Your task to perform on an android device: turn off notifications in google photos Image 0: 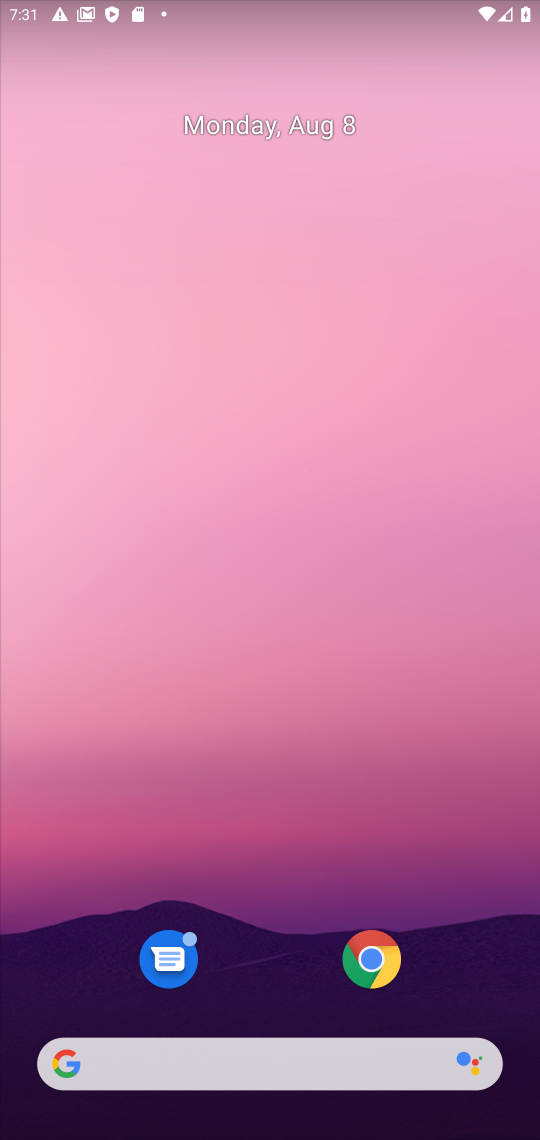
Step 0: drag from (476, 950) to (179, 54)
Your task to perform on an android device: turn off notifications in google photos Image 1: 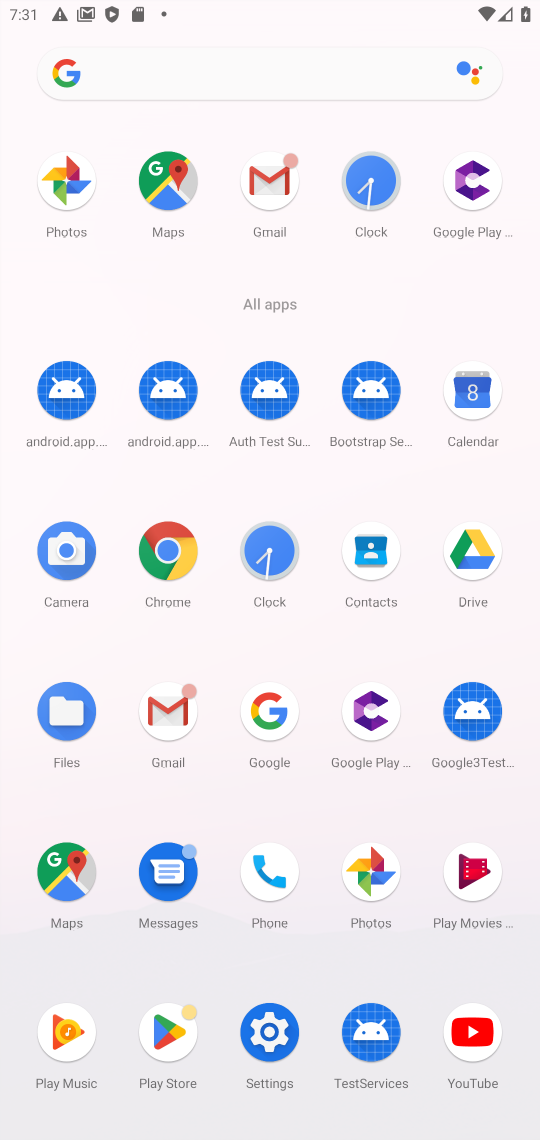
Step 1: click (358, 870)
Your task to perform on an android device: turn off notifications in google photos Image 2: 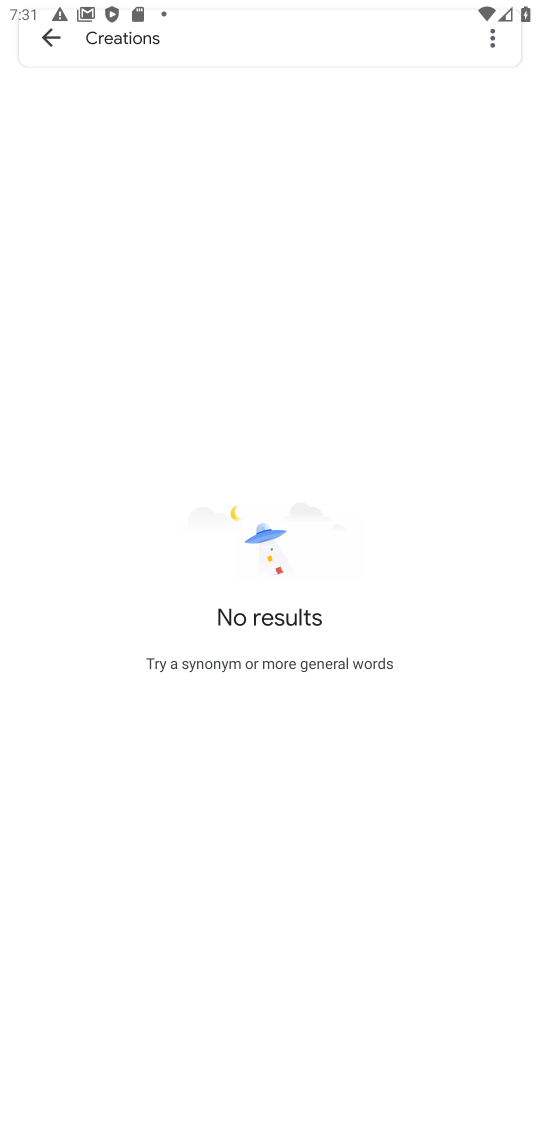
Step 2: click (65, 33)
Your task to perform on an android device: turn off notifications in google photos Image 3: 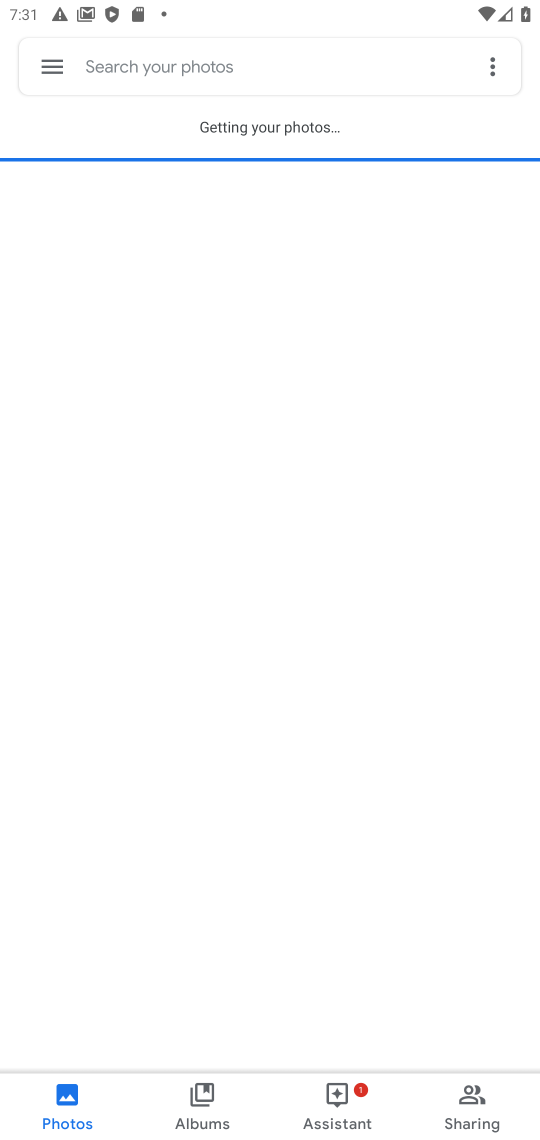
Step 3: click (62, 76)
Your task to perform on an android device: turn off notifications in google photos Image 4: 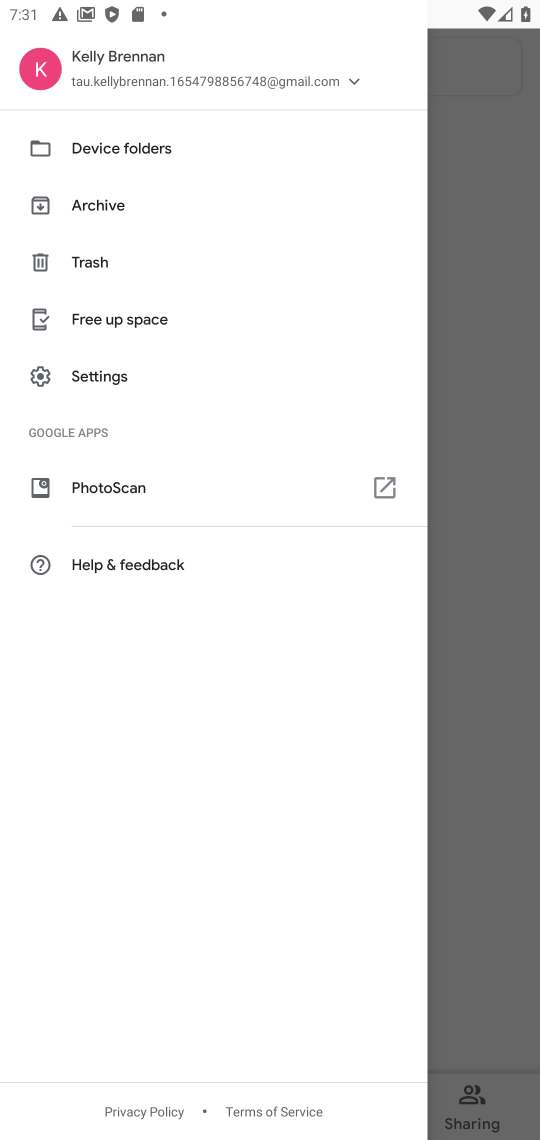
Step 4: click (136, 363)
Your task to perform on an android device: turn off notifications in google photos Image 5: 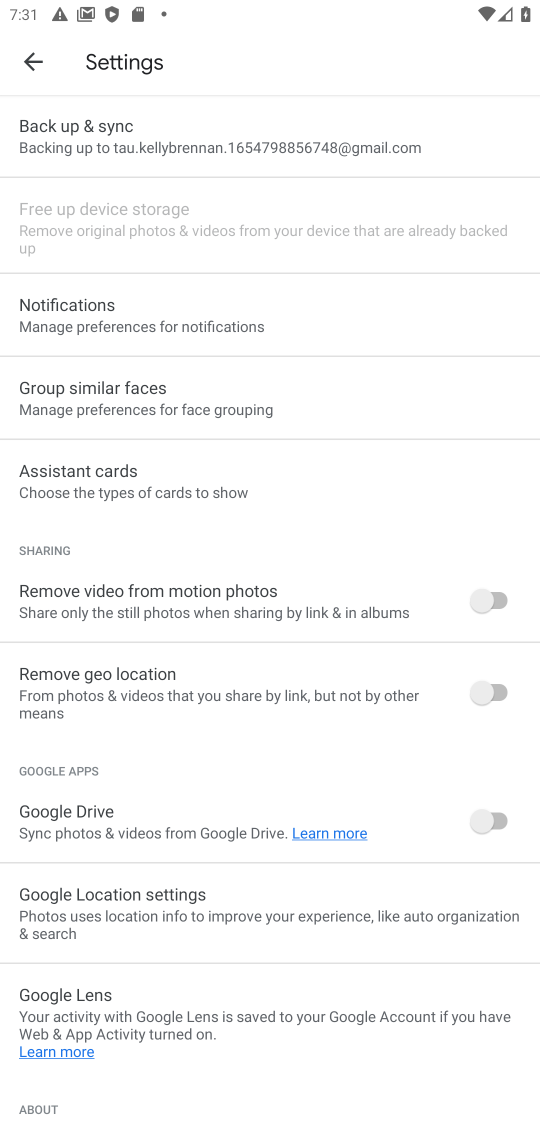
Step 5: click (104, 300)
Your task to perform on an android device: turn off notifications in google photos Image 6: 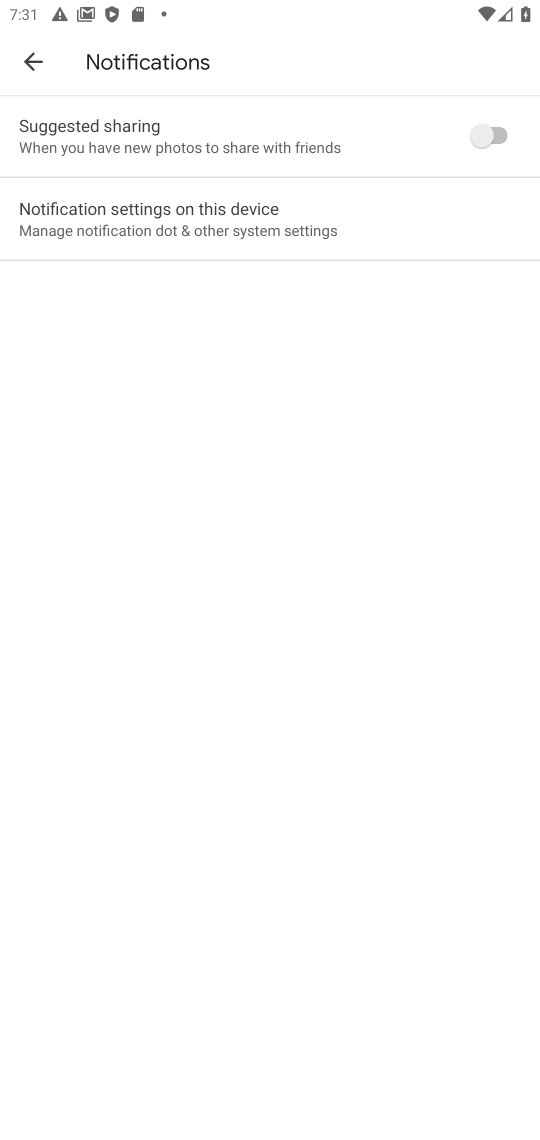
Step 6: task complete